Your task to perform on an android device: Go to sound settings Image 0: 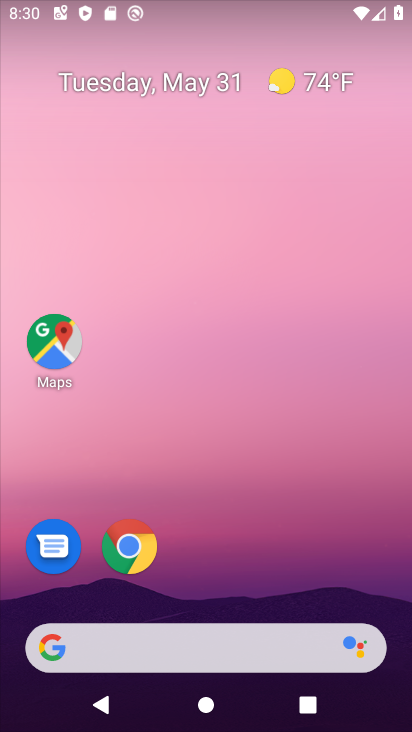
Step 0: drag from (231, 573) to (266, 159)
Your task to perform on an android device: Go to sound settings Image 1: 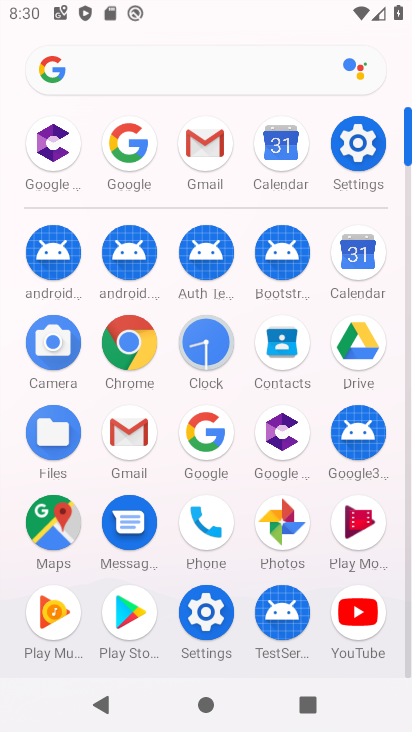
Step 1: click (365, 151)
Your task to perform on an android device: Go to sound settings Image 2: 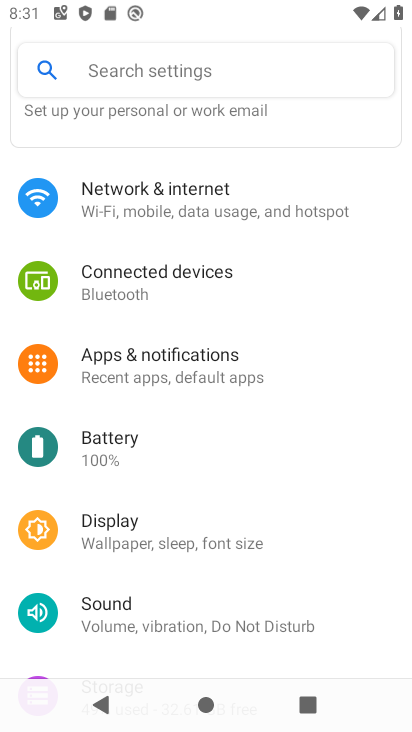
Step 2: click (129, 613)
Your task to perform on an android device: Go to sound settings Image 3: 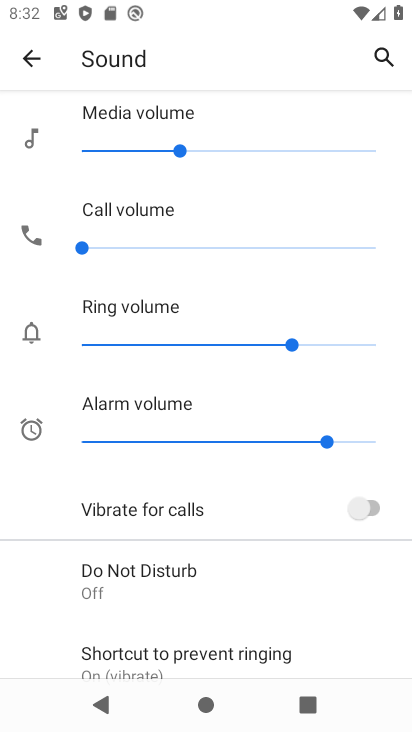
Step 3: task complete